Your task to perform on an android device: Search for "acer nitro" on newegg.com, select the first entry, and add it to the cart. Image 0: 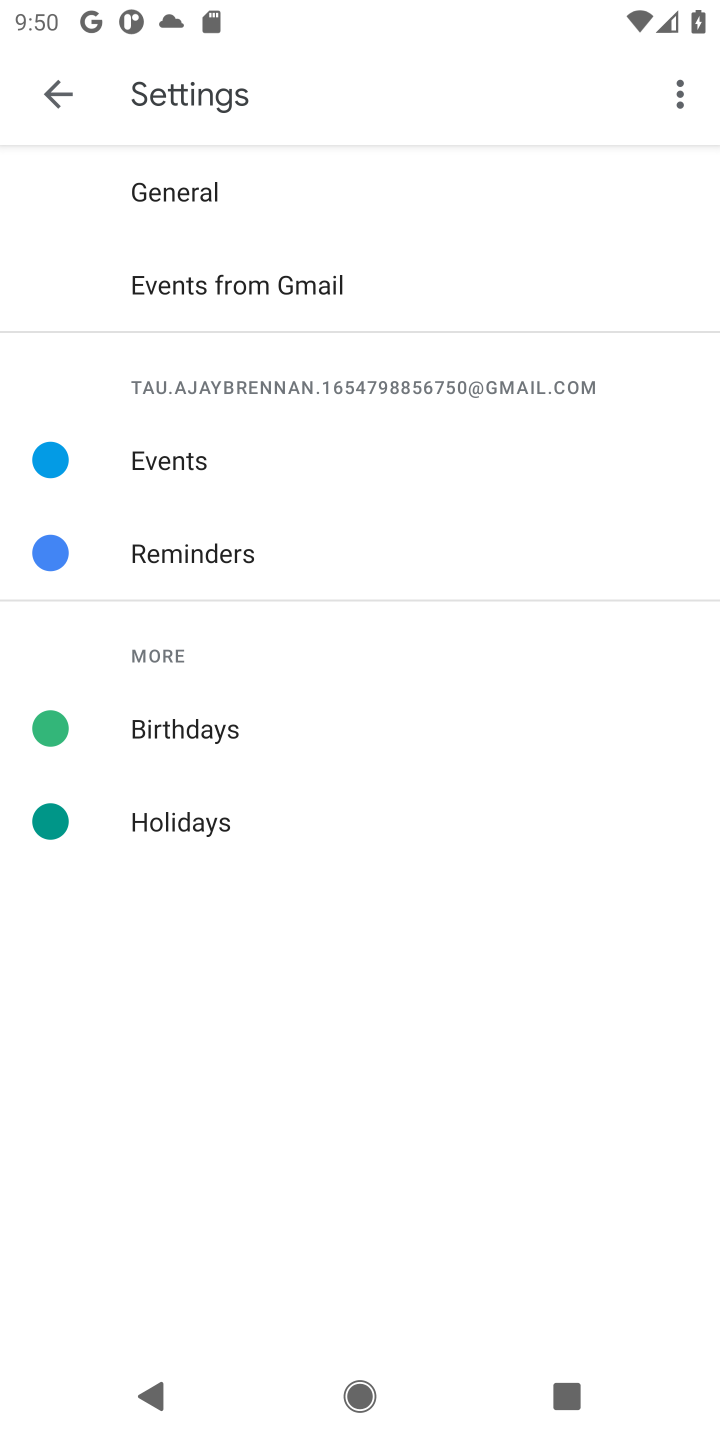
Step 0: press home button
Your task to perform on an android device: Search for "acer nitro" on newegg.com, select the first entry, and add it to the cart. Image 1: 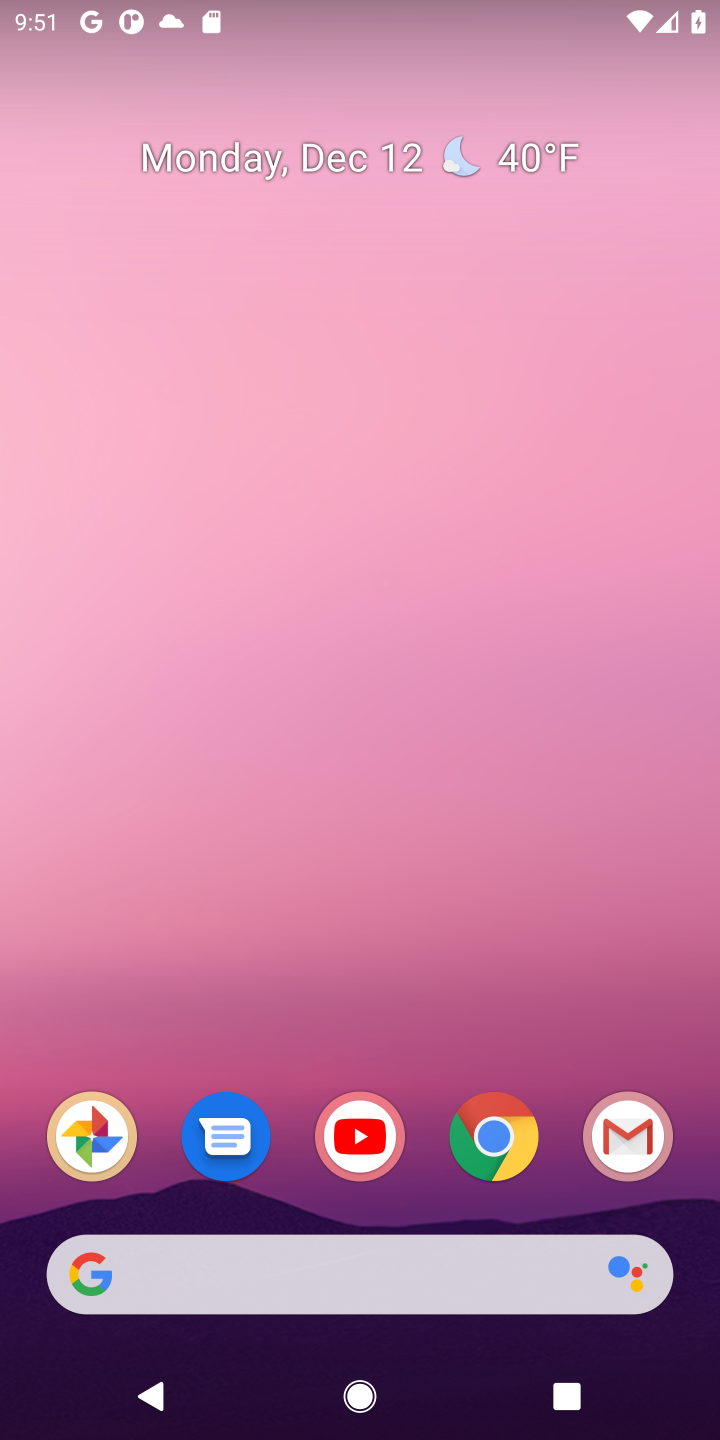
Step 1: click (495, 1142)
Your task to perform on an android device: Search for "acer nitro" on newegg.com, select the first entry, and add it to the cart. Image 2: 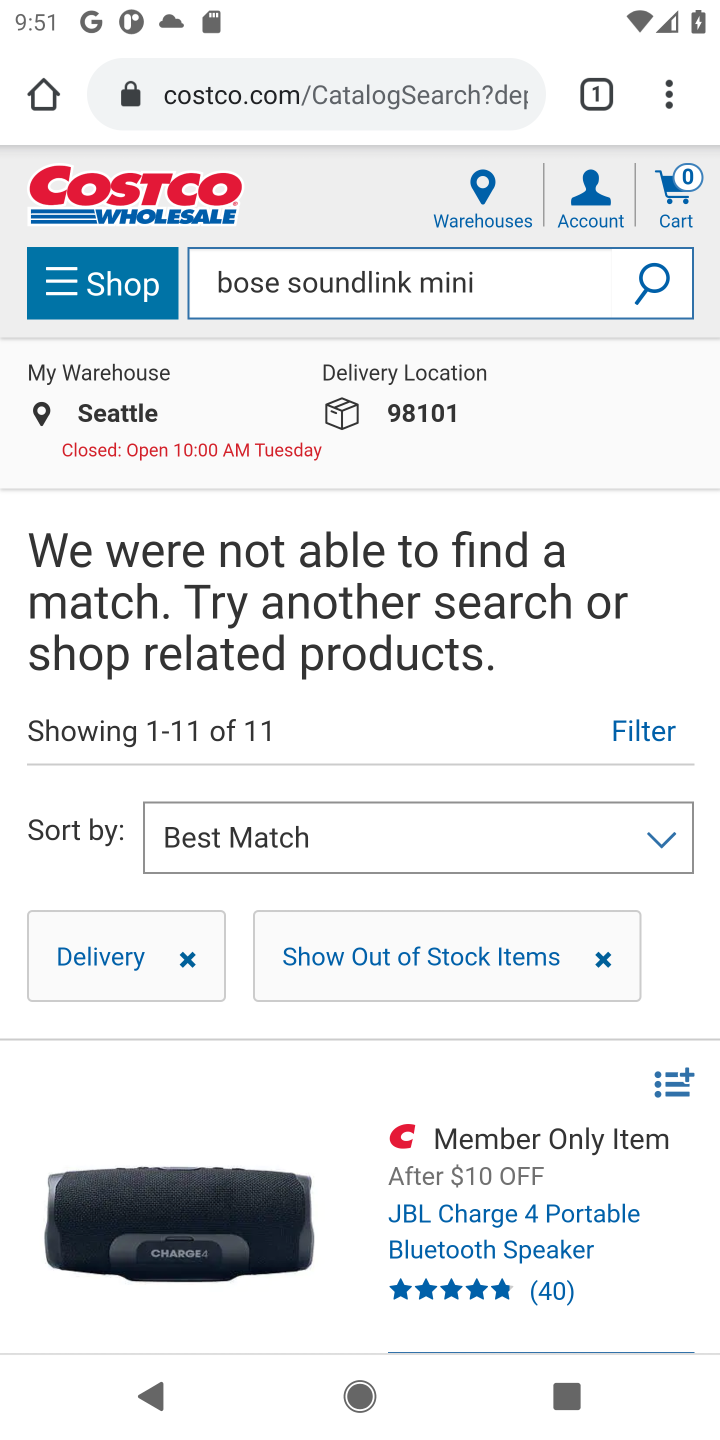
Step 2: click (309, 103)
Your task to perform on an android device: Search for "acer nitro" on newegg.com, select the first entry, and add it to the cart. Image 3: 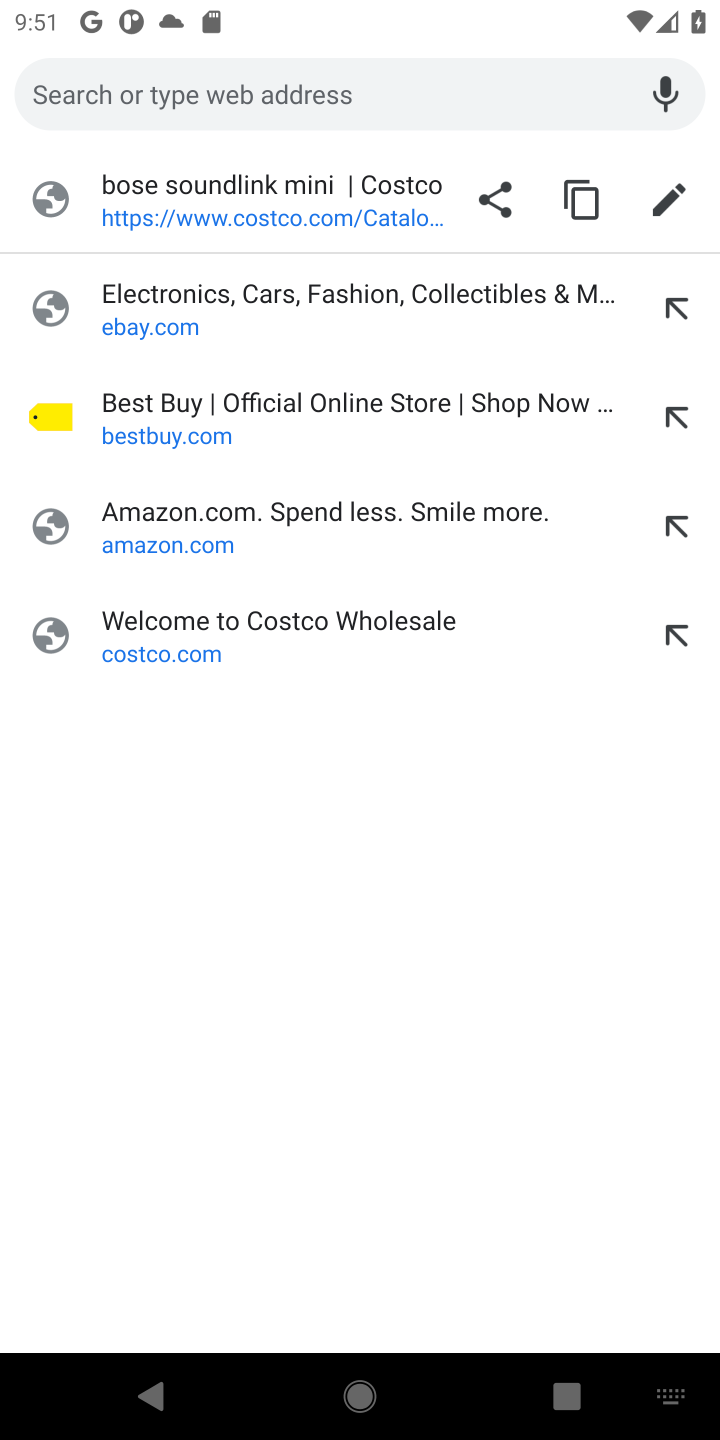
Step 3: type "newegg.com"
Your task to perform on an android device: Search for "acer nitro" on newegg.com, select the first entry, and add it to the cart. Image 4: 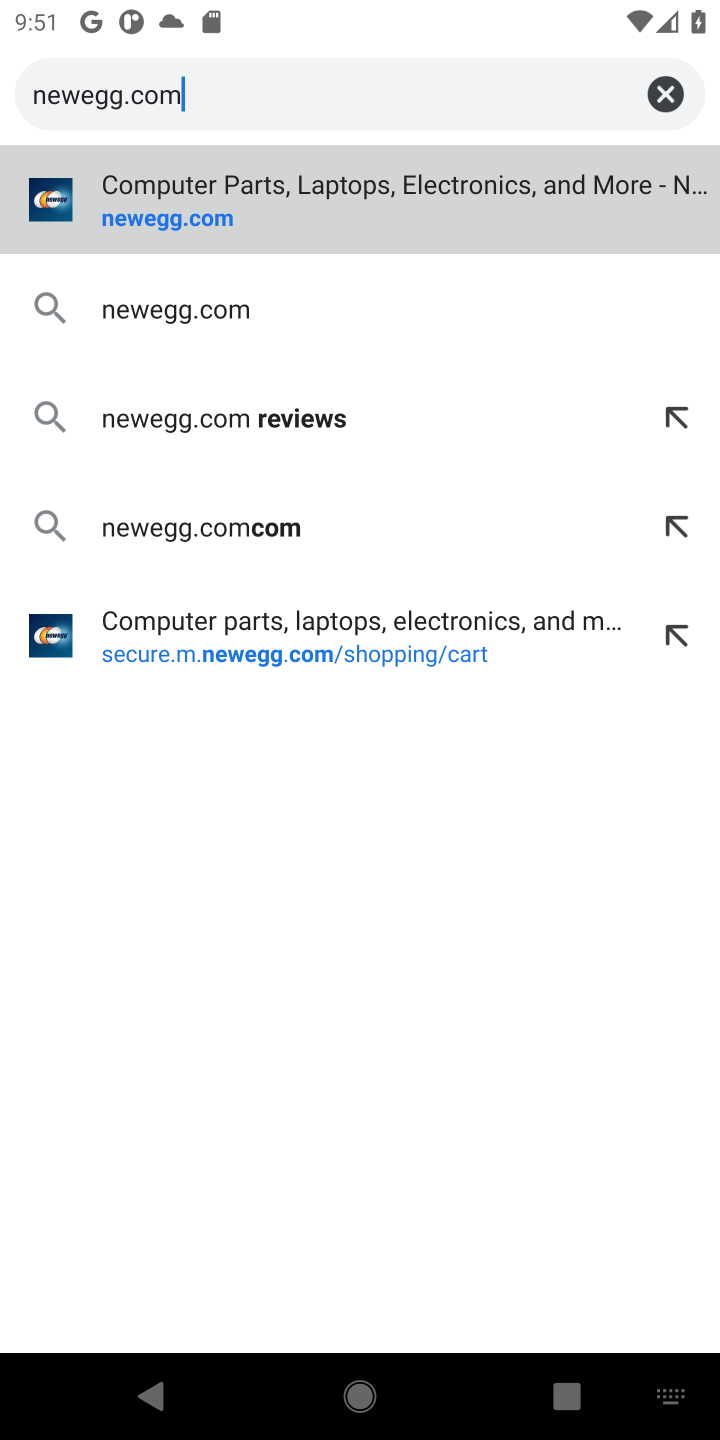
Step 4: click (189, 206)
Your task to perform on an android device: Search for "acer nitro" on newegg.com, select the first entry, and add it to the cart. Image 5: 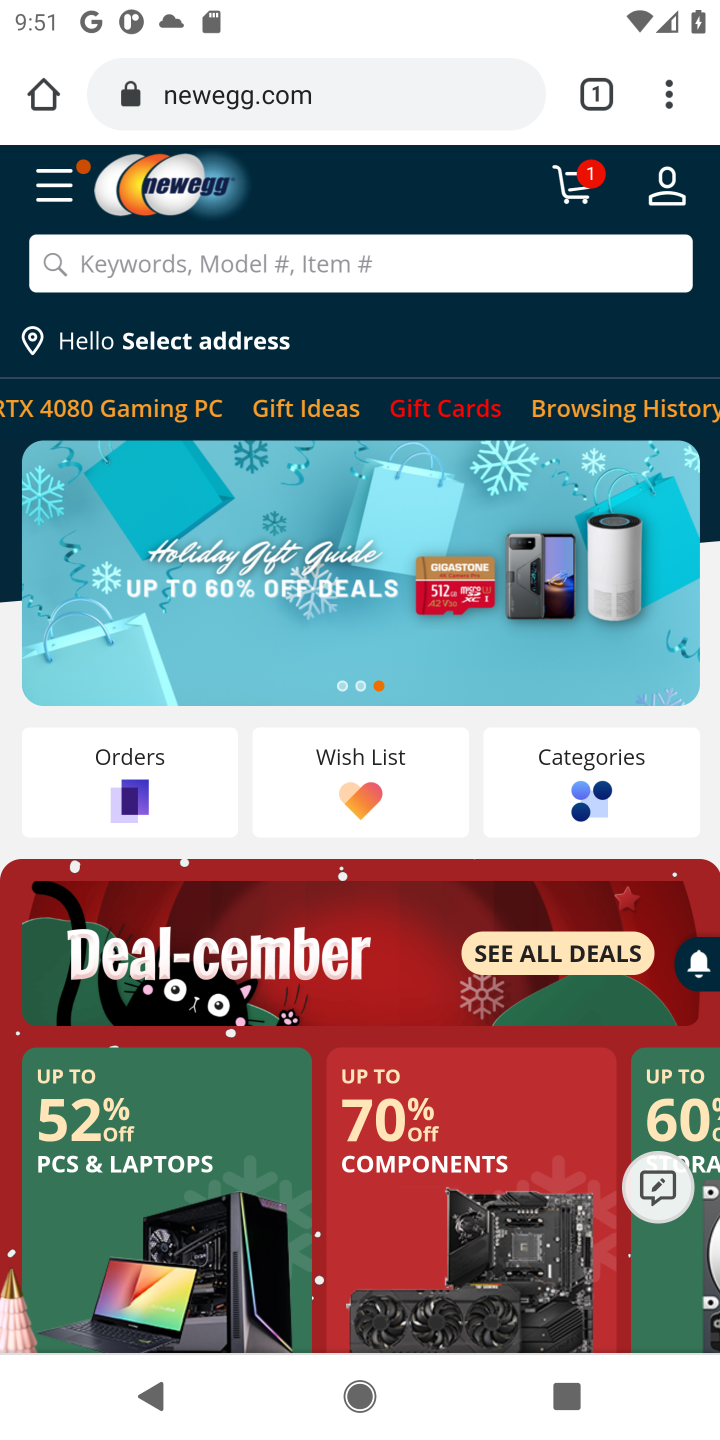
Step 5: click (139, 259)
Your task to perform on an android device: Search for "acer nitro" on newegg.com, select the first entry, and add it to the cart. Image 6: 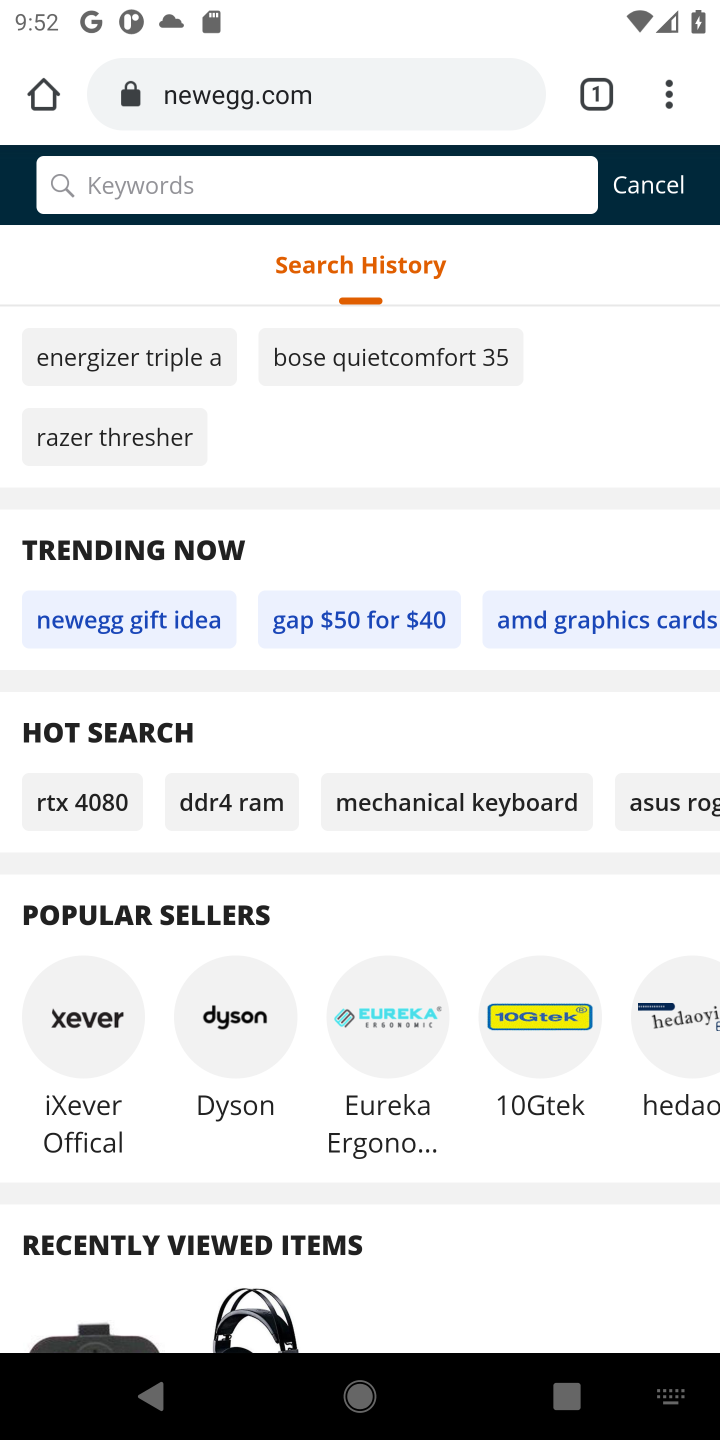
Step 6: type "acer nitro"
Your task to perform on an android device: Search for "acer nitro" on newegg.com, select the first entry, and add it to the cart. Image 7: 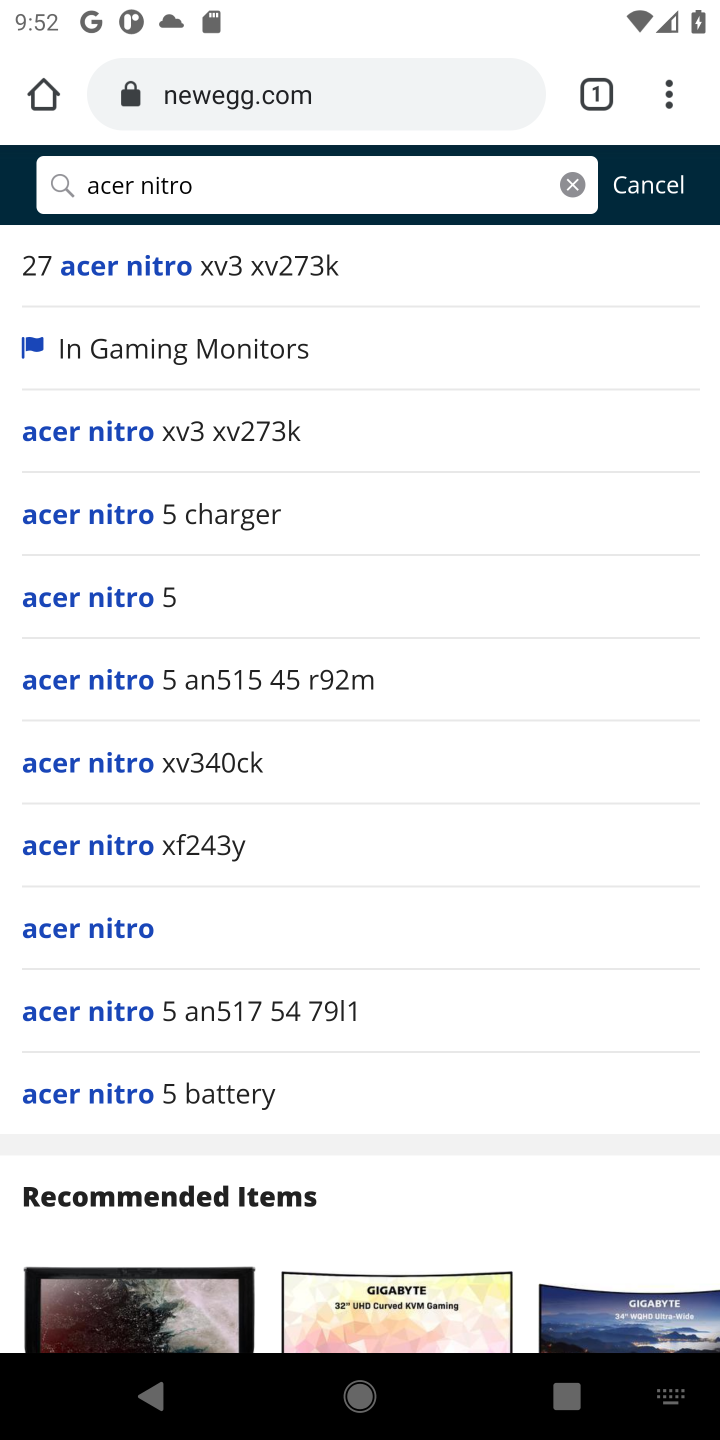
Step 7: click (67, 938)
Your task to perform on an android device: Search for "acer nitro" on newegg.com, select the first entry, and add it to the cart. Image 8: 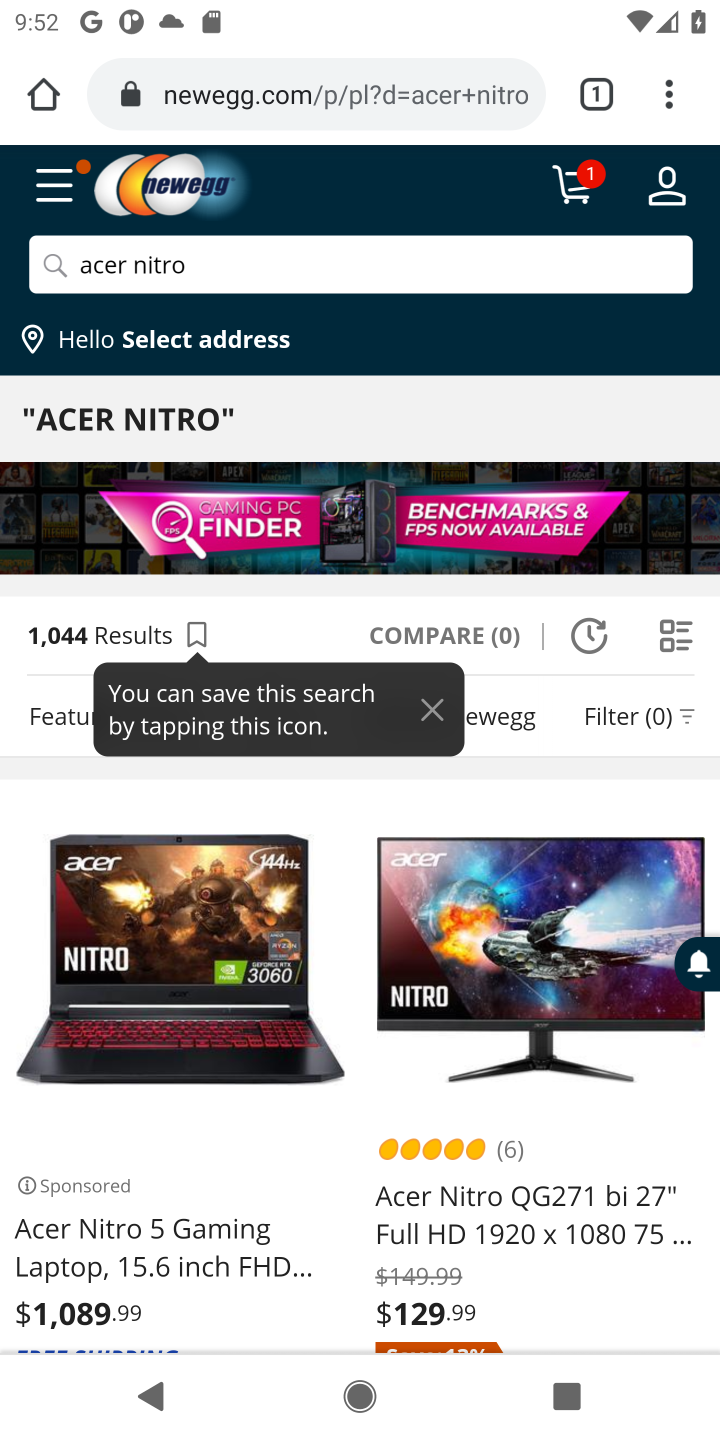
Step 8: click (136, 1231)
Your task to perform on an android device: Search for "acer nitro" on newegg.com, select the first entry, and add it to the cart. Image 9: 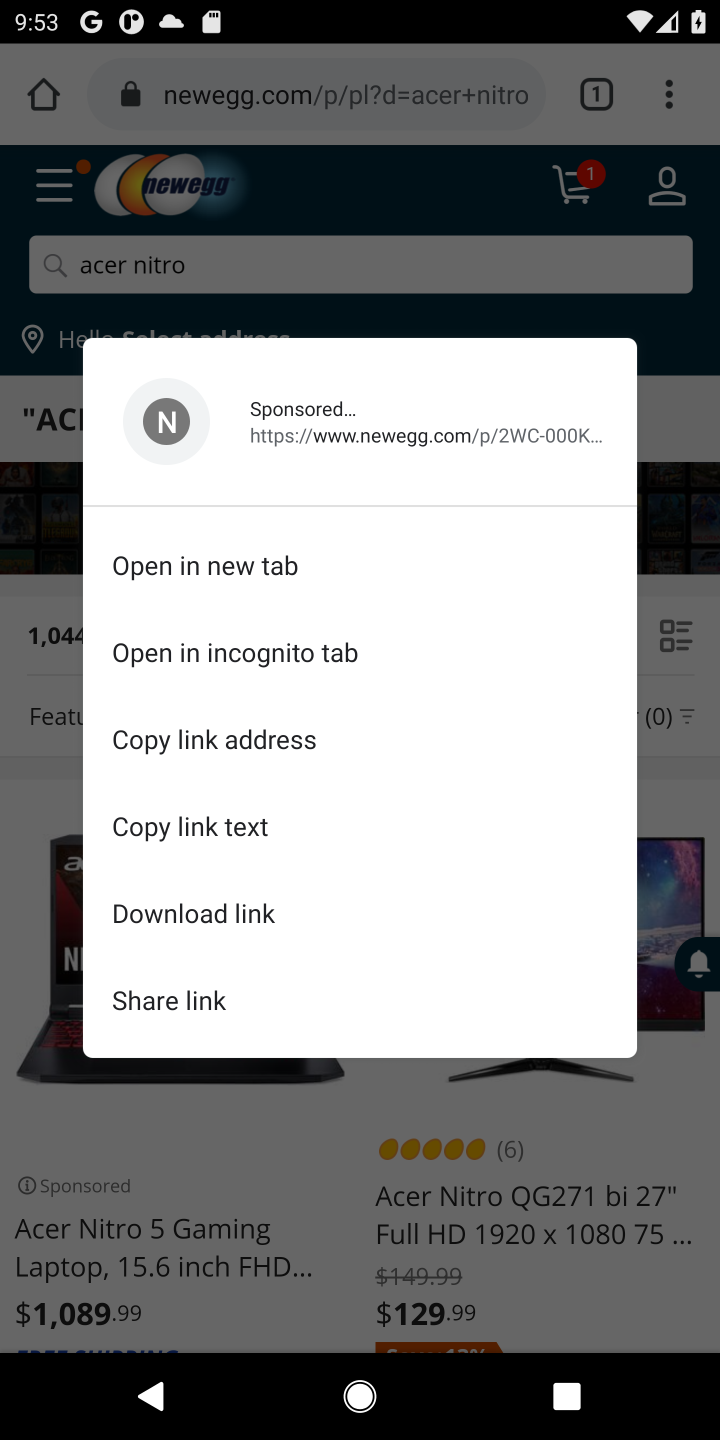
Step 9: click (111, 1265)
Your task to perform on an android device: Search for "acer nitro" on newegg.com, select the first entry, and add it to the cart. Image 10: 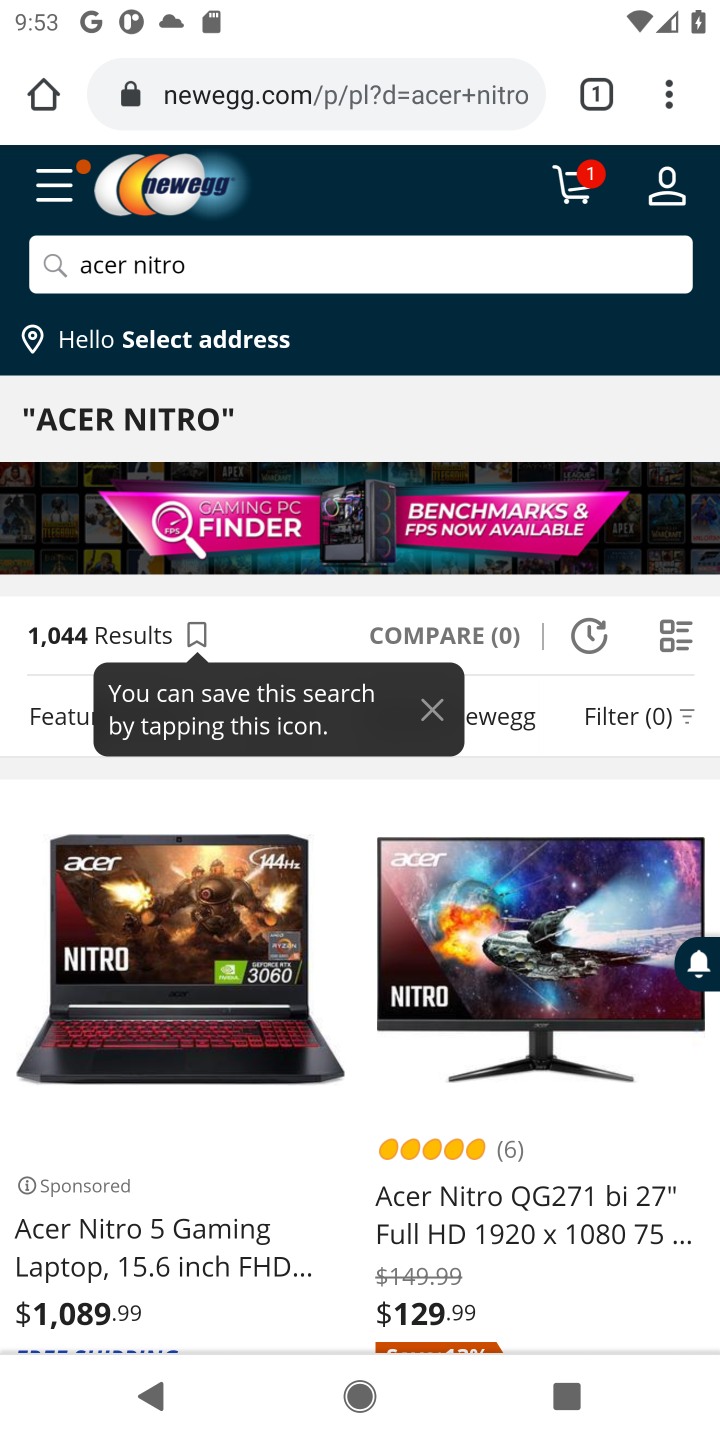
Step 10: click (111, 1265)
Your task to perform on an android device: Search for "acer nitro" on newegg.com, select the first entry, and add it to the cart. Image 11: 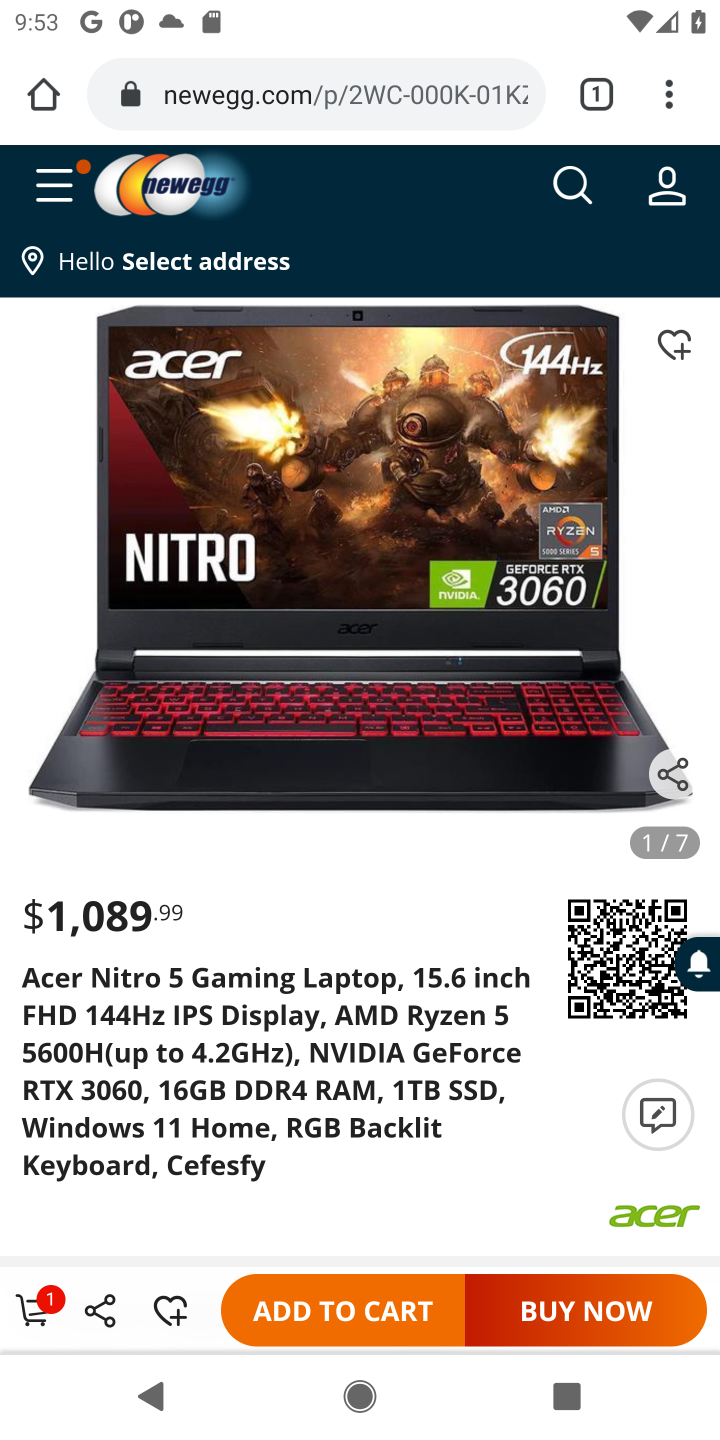
Step 11: click (321, 1319)
Your task to perform on an android device: Search for "acer nitro" on newegg.com, select the first entry, and add it to the cart. Image 12: 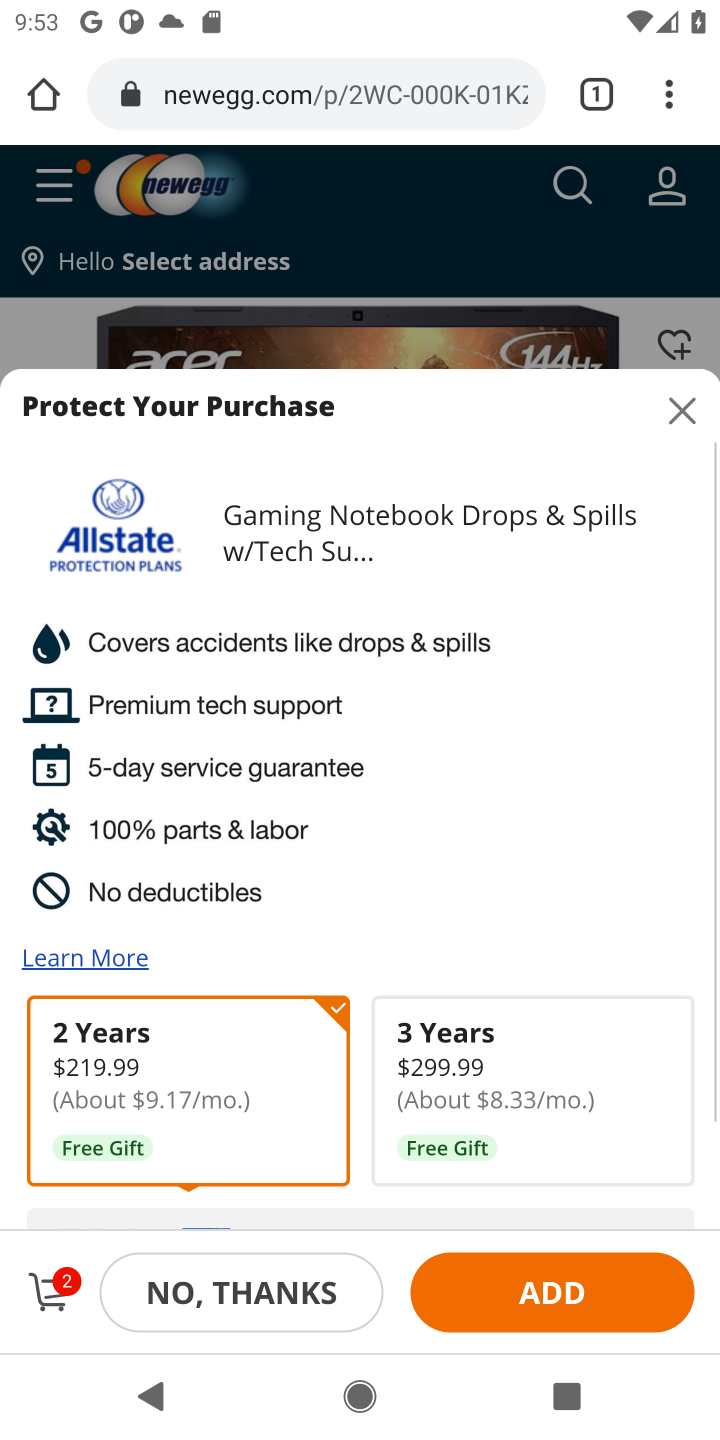
Step 12: task complete